Your task to perform on an android device: Open Youtube and go to the subscriptions tab Image 0: 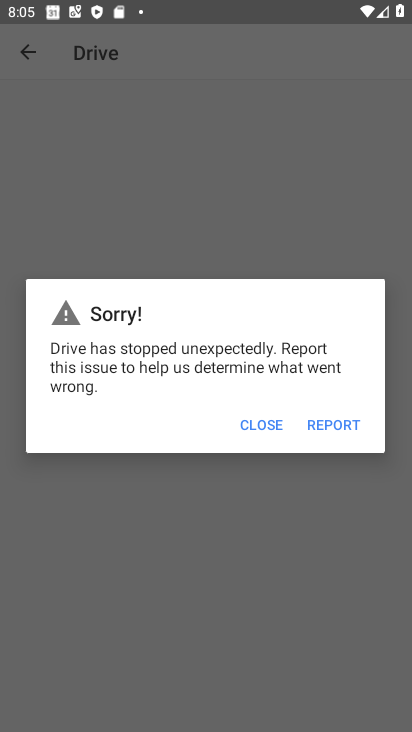
Step 0: press home button
Your task to perform on an android device: Open Youtube and go to the subscriptions tab Image 1: 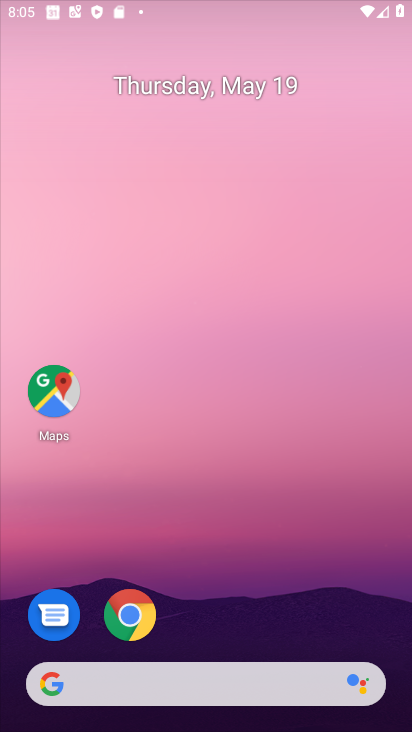
Step 1: drag from (242, 461) to (161, 11)
Your task to perform on an android device: Open Youtube and go to the subscriptions tab Image 2: 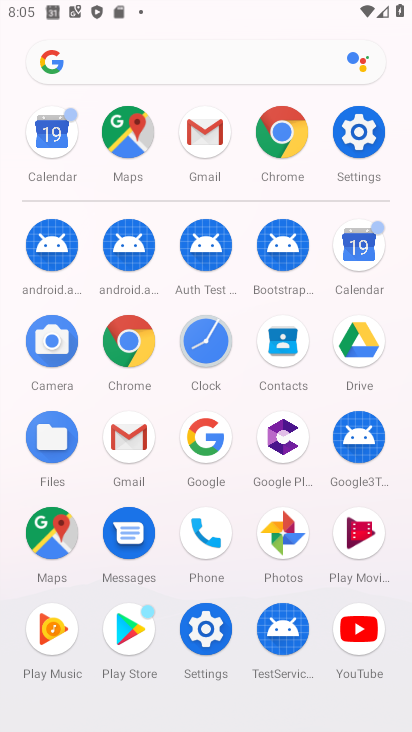
Step 2: click (360, 642)
Your task to perform on an android device: Open Youtube and go to the subscriptions tab Image 3: 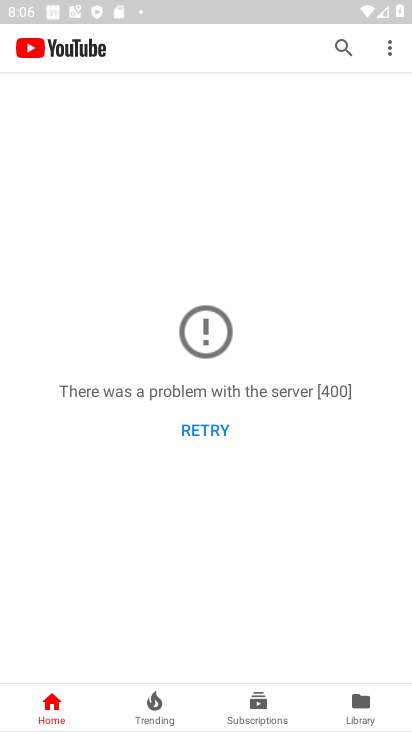
Step 3: click (255, 717)
Your task to perform on an android device: Open Youtube and go to the subscriptions tab Image 4: 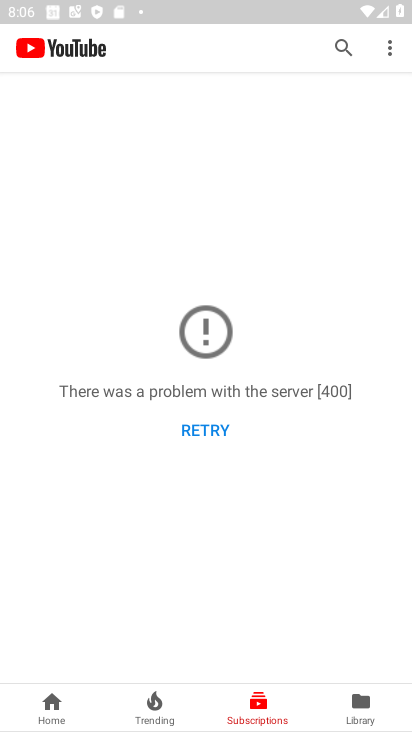
Step 4: task complete